Your task to perform on an android device: stop showing notifications on the lock screen Image 0: 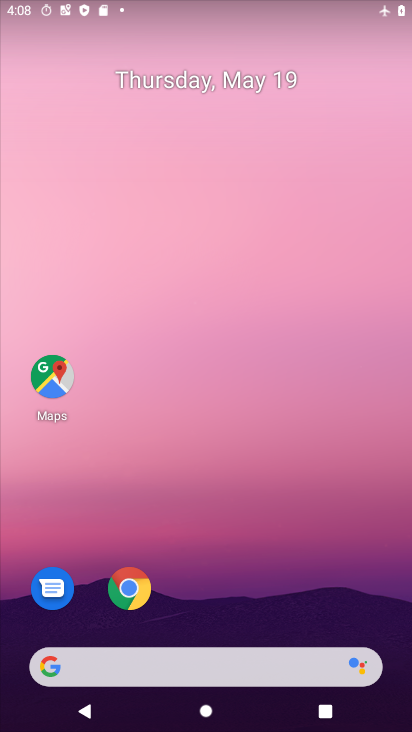
Step 0: drag from (211, 618) to (287, 94)
Your task to perform on an android device: stop showing notifications on the lock screen Image 1: 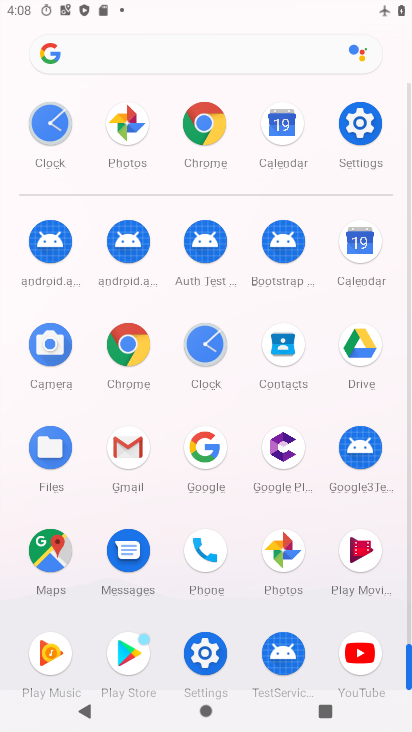
Step 1: click (374, 149)
Your task to perform on an android device: stop showing notifications on the lock screen Image 2: 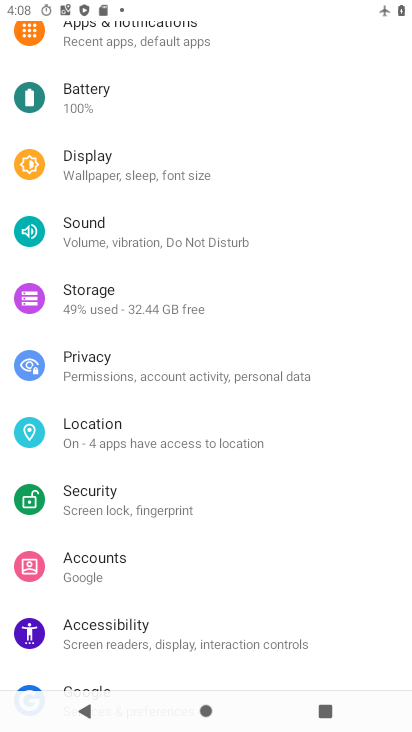
Step 2: drag from (158, 186) to (146, 458)
Your task to perform on an android device: stop showing notifications on the lock screen Image 3: 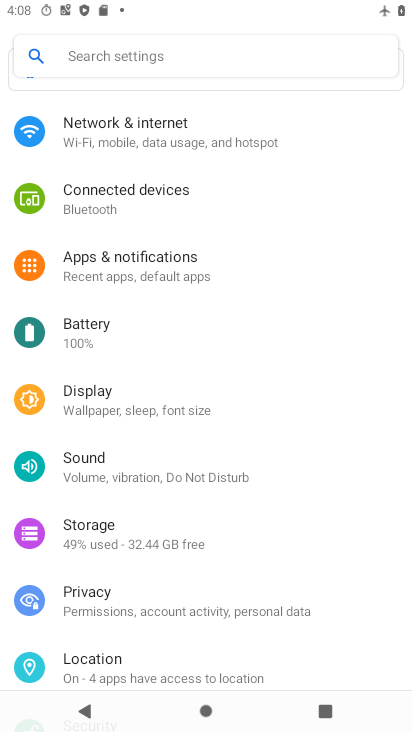
Step 3: click (153, 272)
Your task to perform on an android device: stop showing notifications on the lock screen Image 4: 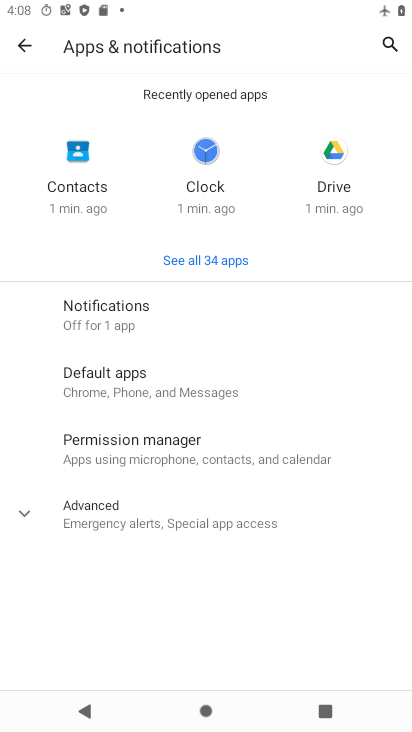
Step 4: click (115, 326)
Your task to perform on an android device: stop showing notifications on the lock screen Image 5: 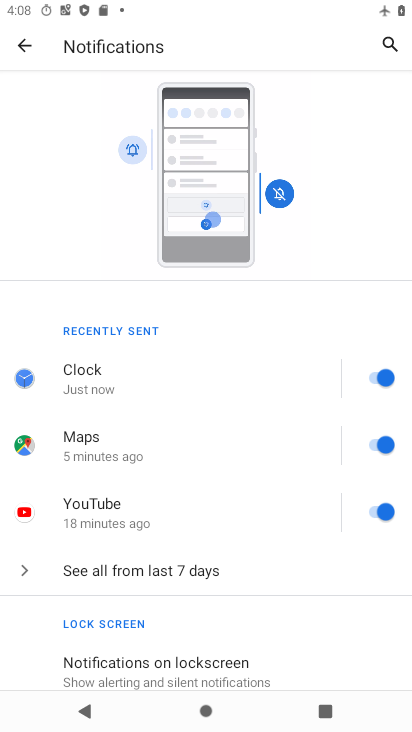
Step 5: drag from (176, 566) to (166, 624)
Your task to perform on an android device: stop showing notifications on the lock screen Image 6: 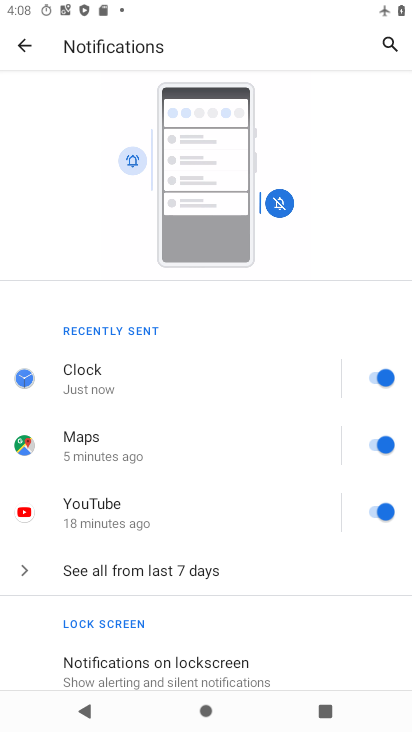
Step 6: click (120, 669)
Your task to perform on an android device: stop showing notifications on the lock screen Image 7: 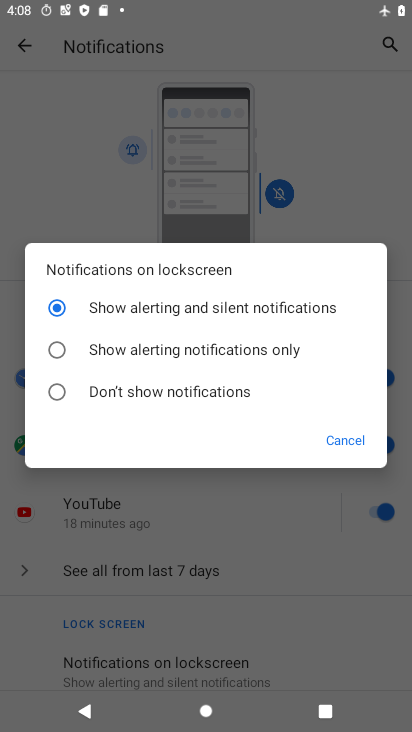
Step 7: click (119, 394)
Your task to perform on an android device: stop showing notifications on the lock screen Image 8: 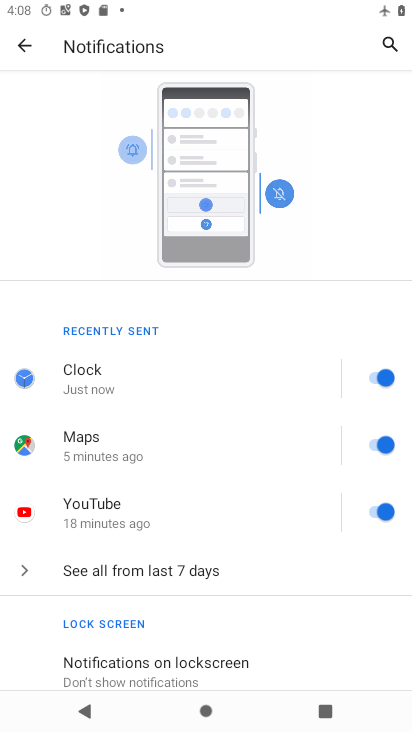
Step 8: task complete